Your task to perform on an android device: Check the news Image 0: 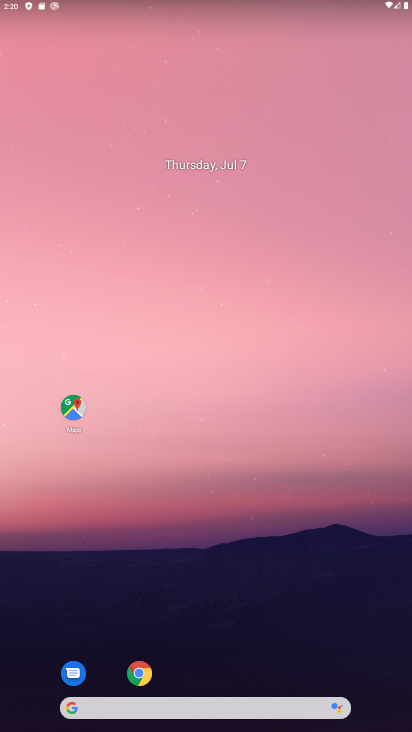
Step 0: drag from (327, 583) to (351, 60)
Your task to perform on an android device: Check the news Image 1: 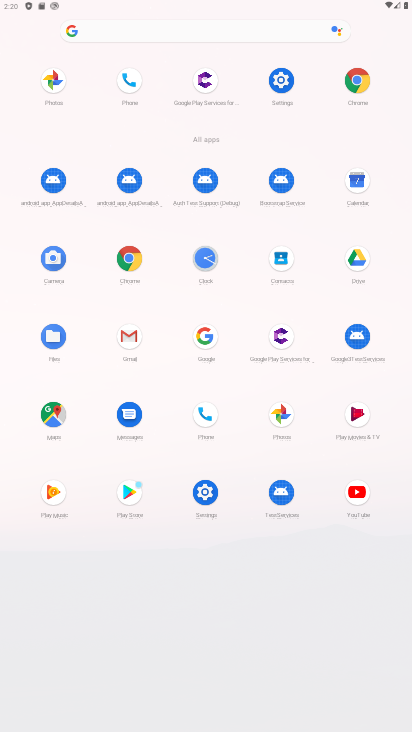
Step 1: click (124, 257)
Your task to perform on an android device: Check the news Image 2: 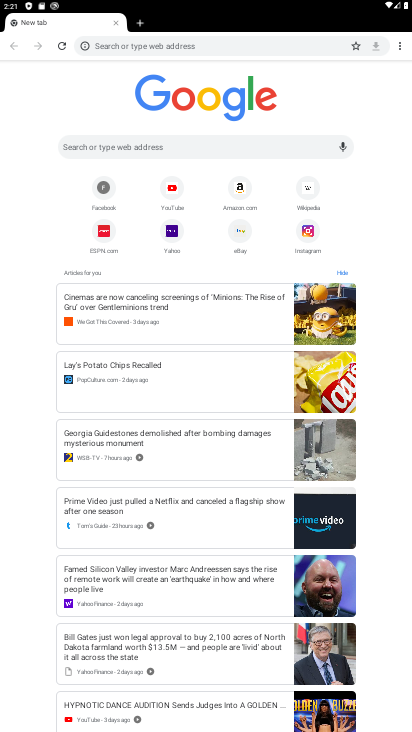
Step 2: type "news"
Your task to perform on an android device: Check the news Image 3: 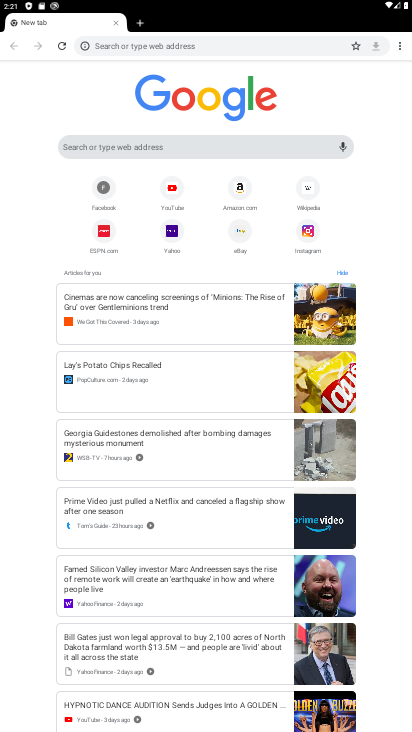
Step 3: click (244, 148)
Your task to perform on an android device: Check the news Image 4: 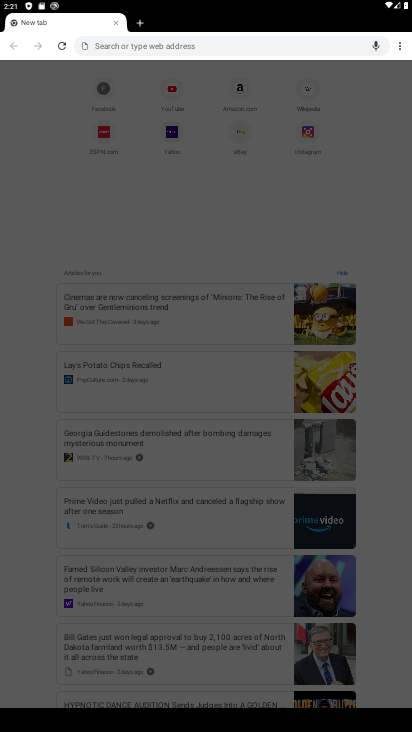
Step 4: type "news"
Your task to perform on an android device: Check the news Image 5: 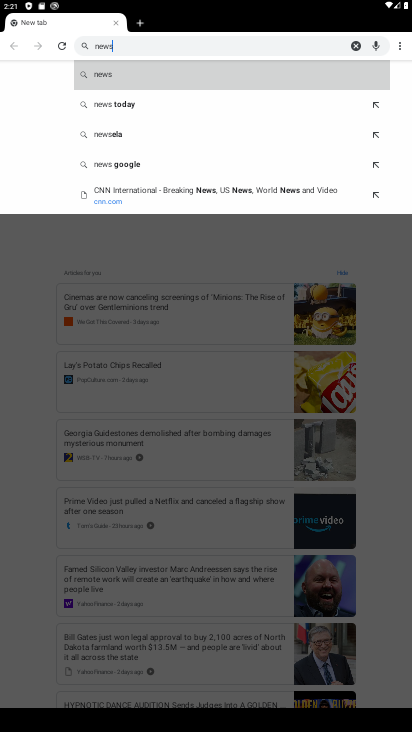
Step 5: click (97, 79)
Your task to perform on an android device: Check the news Image 6: 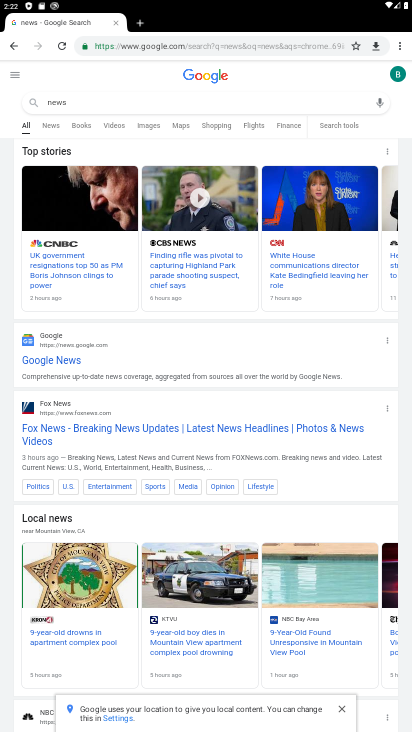
Step 6: click (49, 124)
Your task to perform on an android device: Check the news Image 7: 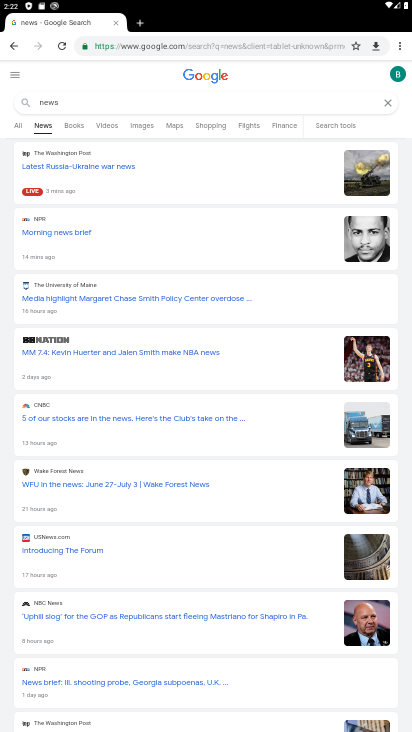
Step 7: task complete